Your task to perform on an android device: toggle pop-ups in chrome Image 0: 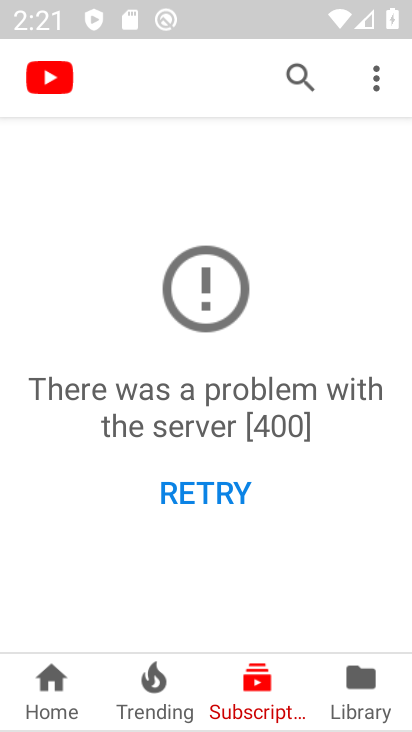
Step 0: press home button
Your task to perform on an android device: toggle pop-ups in chrome Image 1: 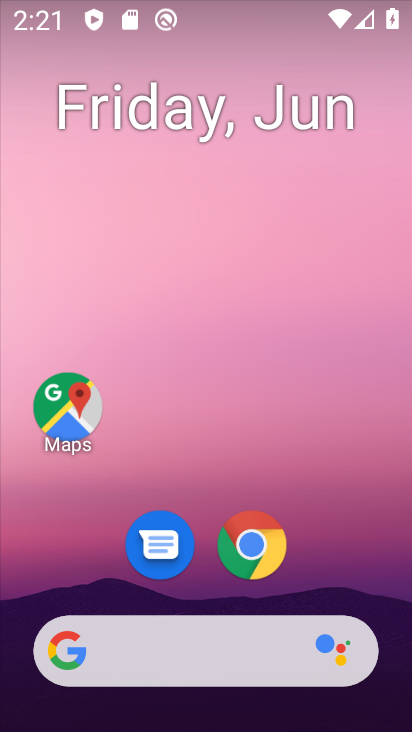
Step 1: click (258, 554)
Your task to perform on an android device: toggle pop-ups in chrome Image 2: 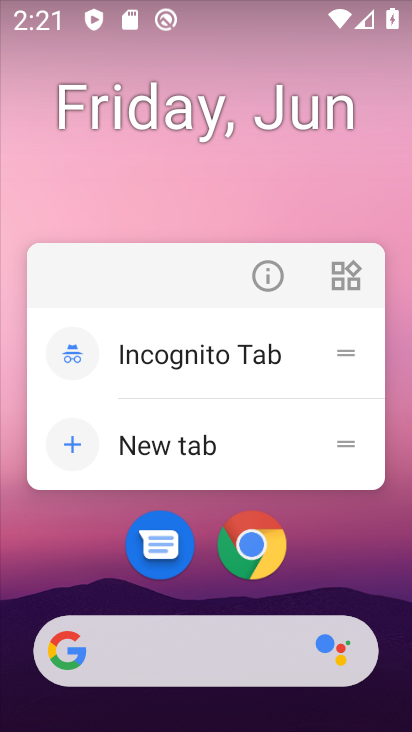
Step 2: click (259, 553)
Your task to perform on an android device: toggle pop-ups in chrome Image 3: 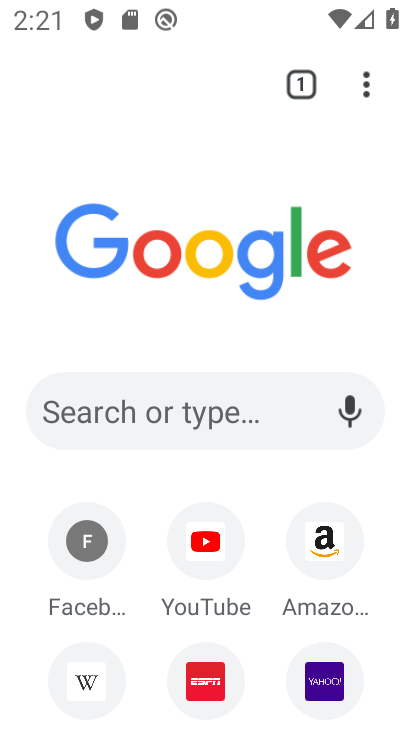
Step 3: click (375, 89)
Your task to perform on an android device: toggle pop-ups in chrome Image 4: 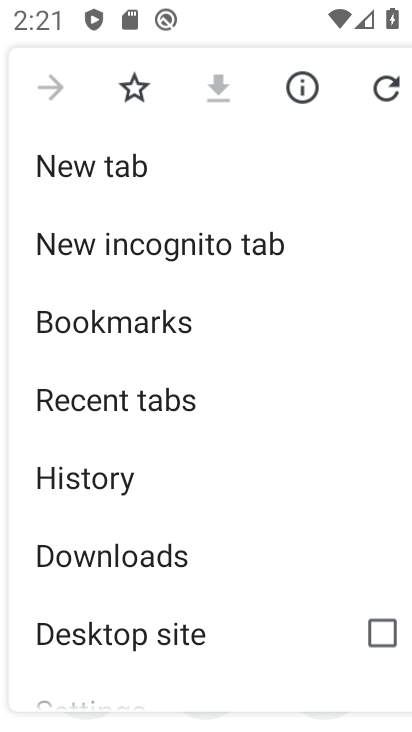
Step 4: drag from (163, 514) to (161, 328)
Your task to perform on an android device: toggle pop-ups in chrome Image 5: 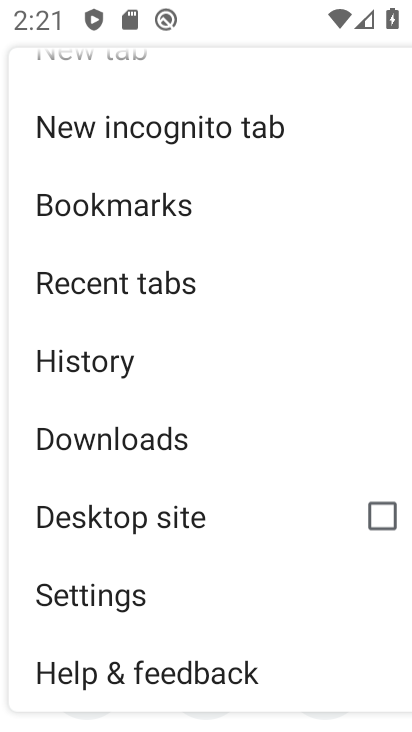
Step 5: click (120, 612)
Your task to perform on an android device: toggle pop-ups in chrome Image 6: 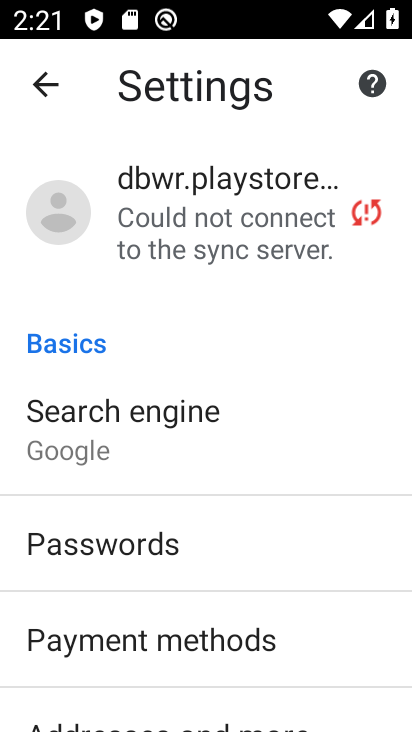
Step 6: drag from (146, 601) to (256, 114)
Your task to perform on an android device: toggle pop-ups in chrome Image 7: 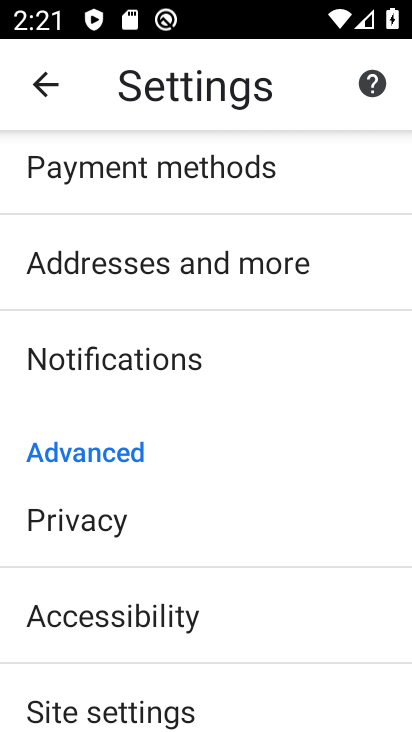
Step 7: drag from (147, 641) to (160, 457)
Your task to perform on an android device: toggle pop-ups in chrome Image 8: 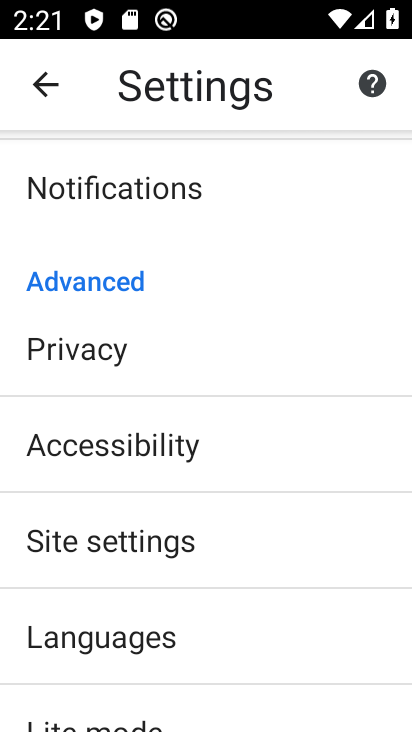
Step 8: click (135, 635)
Your task to perform on an android device: toggle pop-ups in chrome Image 9: 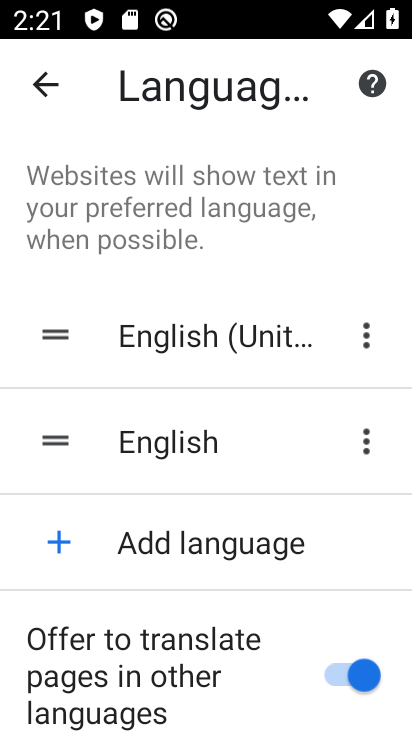
Step 9: click (40, 80)
Your task to perform on an android device: toggle pop-ups in chrome Image 10: 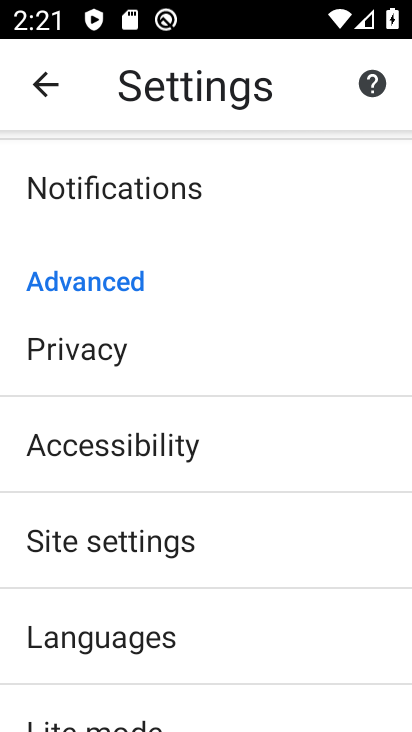
Step 10: click (159, 543)
Your task to perform on an android device: toggle pop-ups in chrome Image 11: 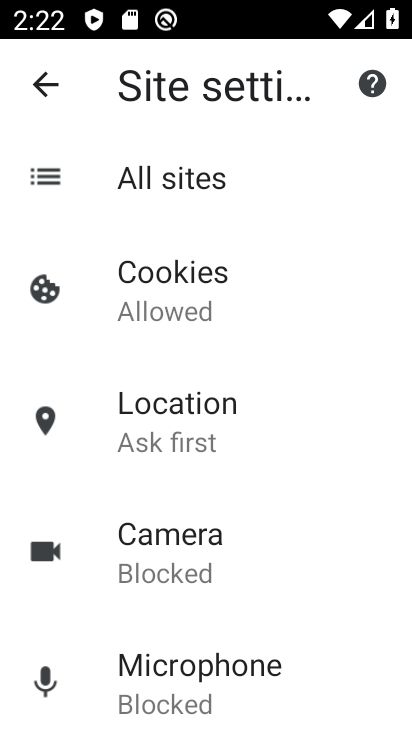
Step 11: drag from (173, 488) to (214, 215)
Your task to perform on an android device: toggle pop-ups in chrome Image 12: 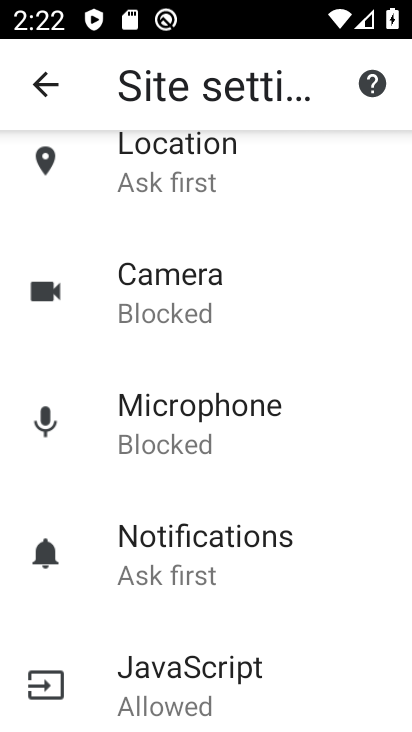
Step 12: drag from (185, 630) to (194, 387)
Your task to perform on an android device: toggle pop-ups in chrome Image 13: 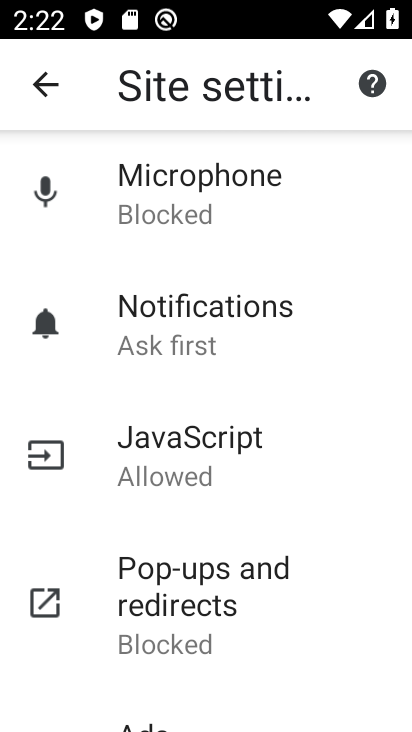
Step 13: click (181, 600)
Your task to perform on an android device: toggle pop-ups in chrome Image 14: 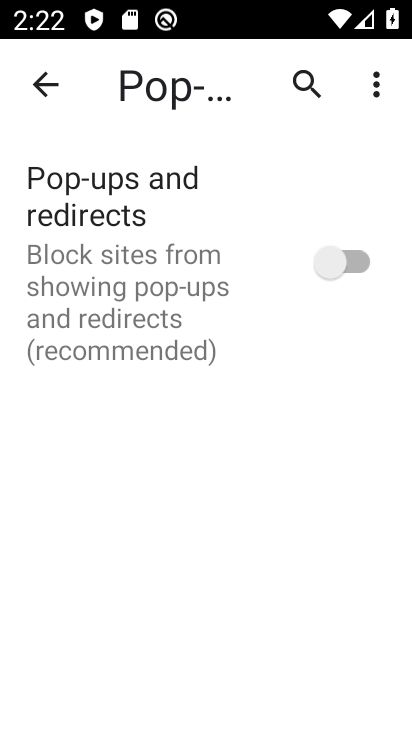
Step 14: click (355, 275)
Your task to perform on an android device: toggle pop-ups in chrome Image 15: 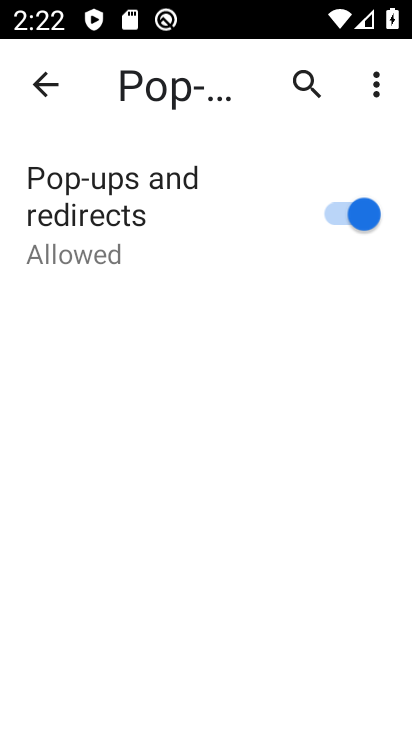
Step 15: task complete